Your task to perform on an android device: change timer sound Image 0: 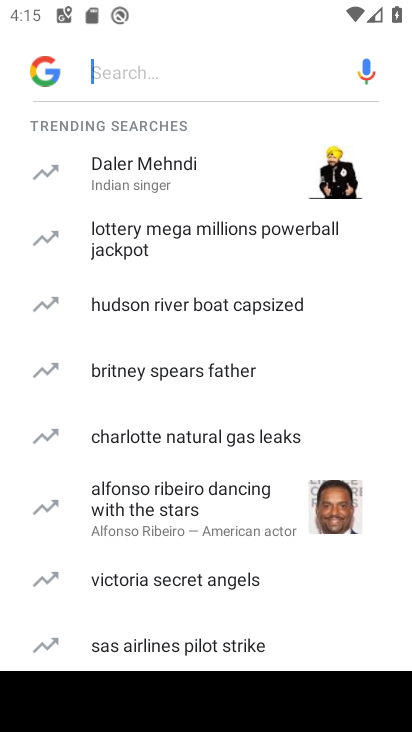
Step 0: press home button
Your task to perform on an android device: change timer sound Image 1: 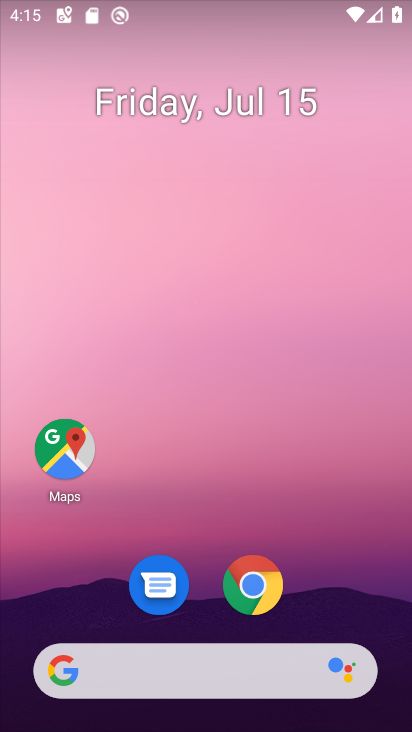
Step 1: drag from (222, 520) to (277, 10)
Your task to perform on an android device: change timer sound Image 2: 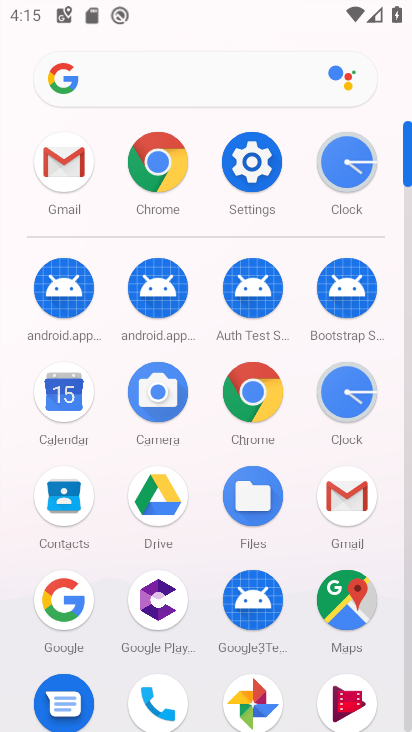
Step 2: click (344, 157)
Your task to perform on an android device: change timer sound Image 3: 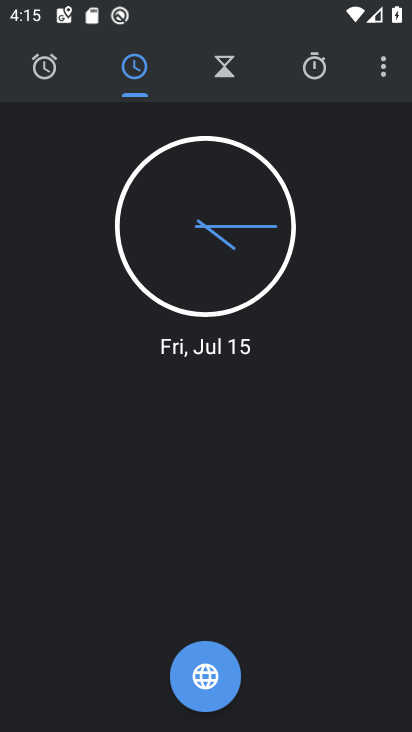
Step 3: click (380, 69)
Your task to perform on an android device: change timer sound Image 4: 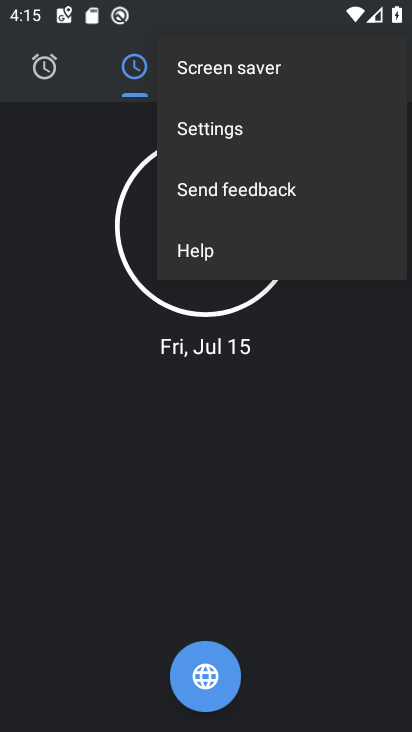
Step 4: click (264, 131)
Your task to perform on an android device: change timer sound Image 5: 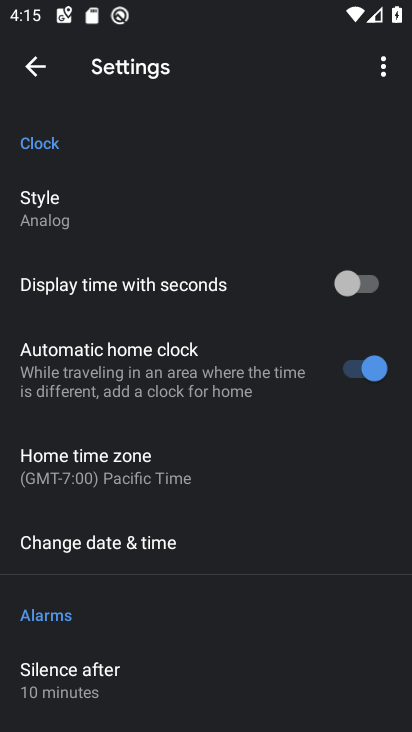
Step 5: drag from (260, 480) to (280, 222)
Your task to perform on an android device: change timer sound Image 6: 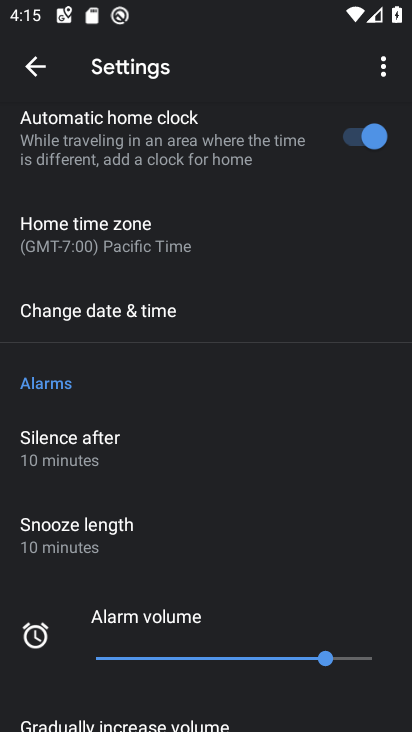
Step 6: drag from (215, 480) to (239, 173)
Your task to perform on an android device: change timer sound Image 7: 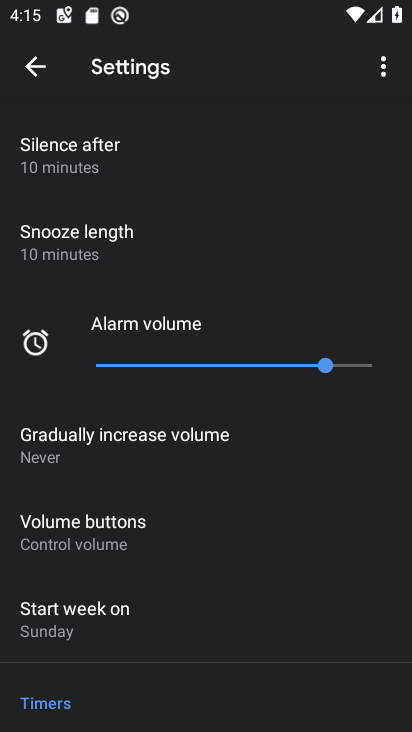
Step 7: drag from (208, 502) to (229, 198)
Your task to perform on an android device: change timer sound Image 8: 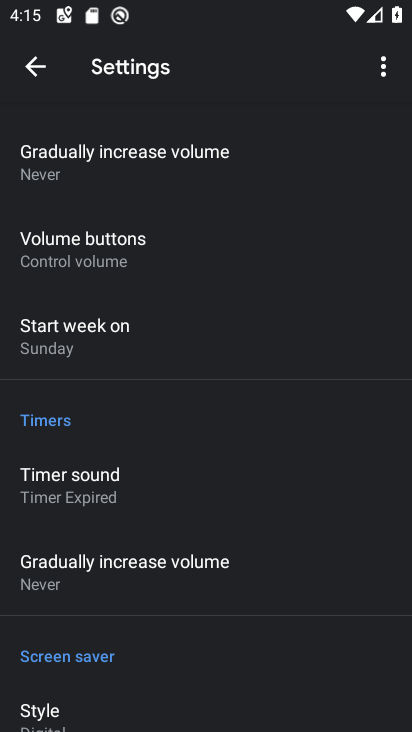
Step 8: click (114, 488)
Your task to perform on an android device: change timer sound Image 9: 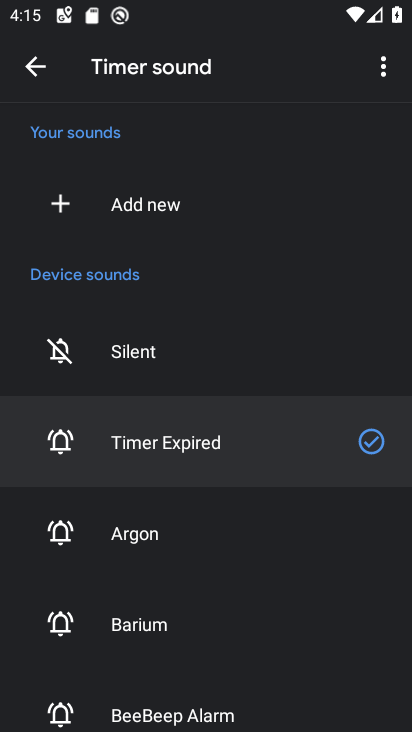
Step 9: click (120, 528)
Your task to perform on an android device: change timer sound Image 10: 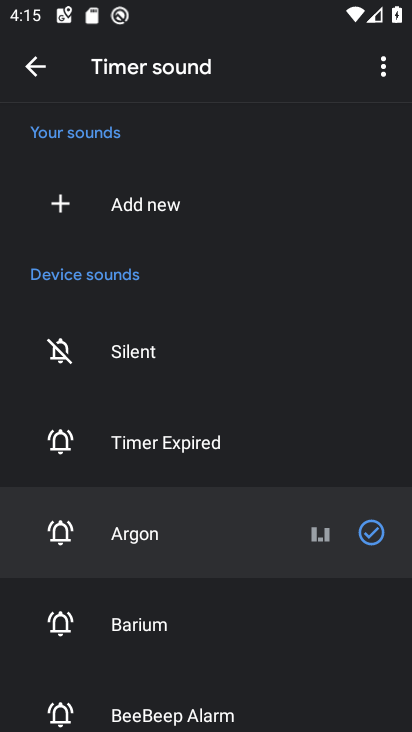
Step 10: task complete